Your task to perform on an android device: Find coffee shops on Maps Image 0: 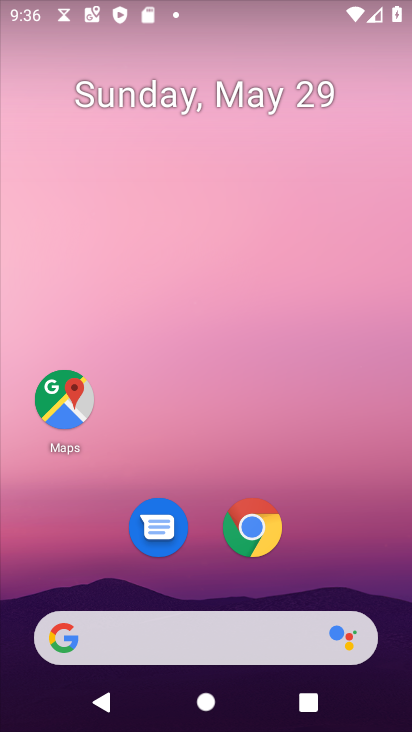
Step 0: press home button
Your task to perform on an android device: Find coffee shops on Maps Image 1: 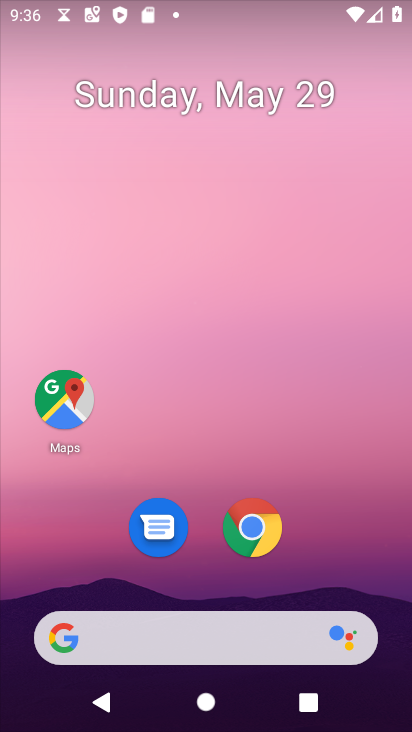
Step 1: click (62, 406)
Your task to perform on an android device: Find coffee shops on Maps Image 2: 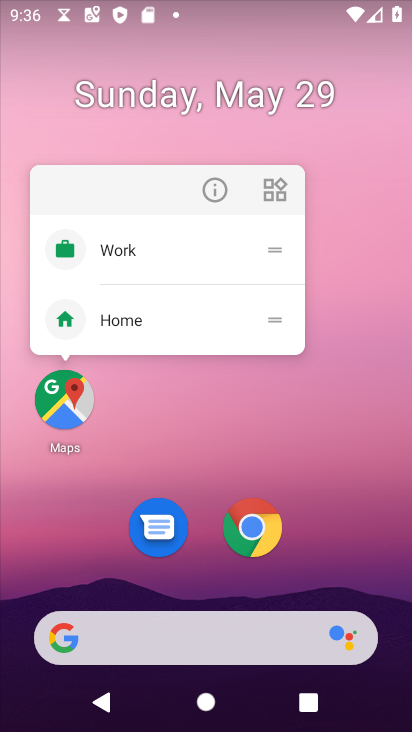
Step 2: click (61, 421)
Your task to perform on an android device: Find coffee shops on Maps Image 3: 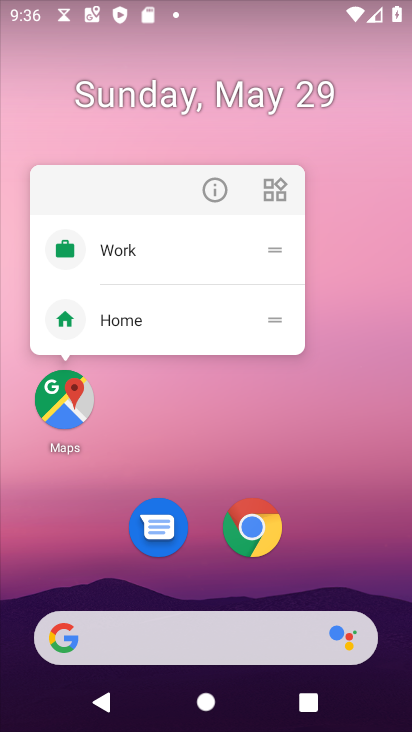
Step 3: click (57, 396)
Your task to perform on an android device: Find coffee shops on Maps Image 4: 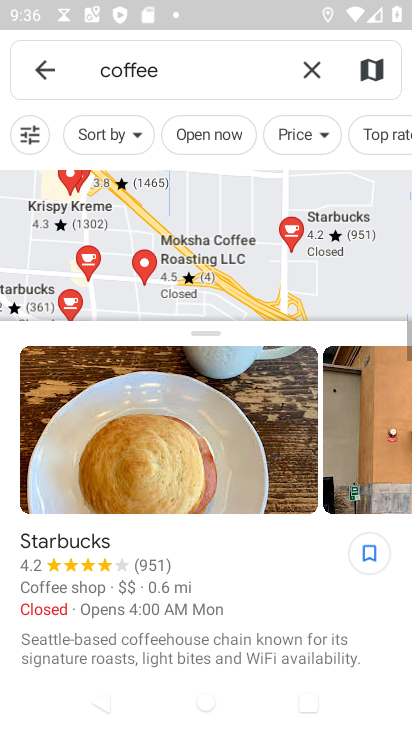
Step 4: drag from (223, 606) to (349, 158)
Your task to perform on an android device: Find coffee shops on Maps Image 5: 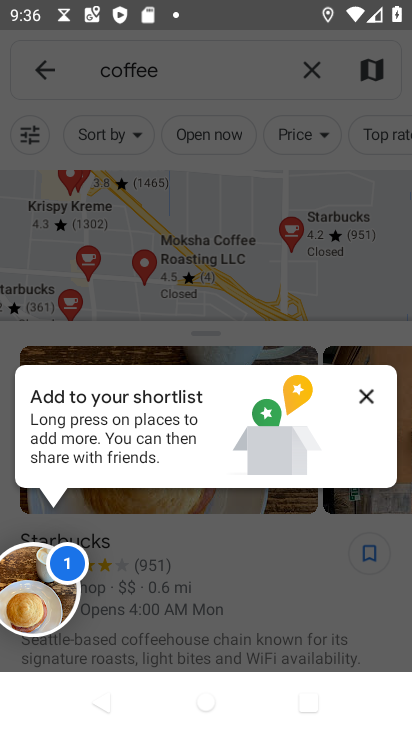
Step 5: drag from (26, 595) to (182, 722)
Your task to perform on an android device: Find coffee shops on Maps Image 6: 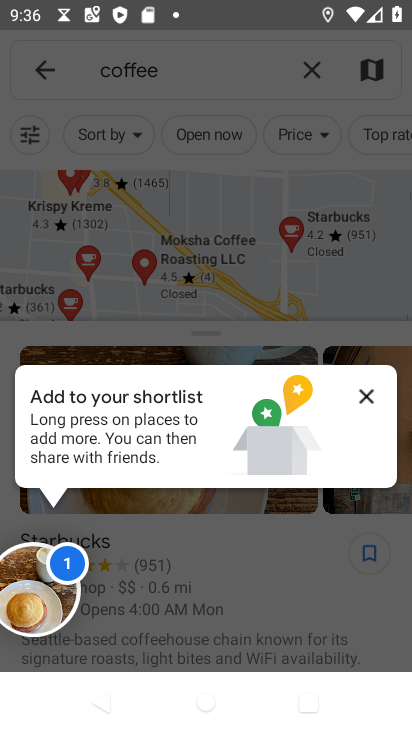
Step 6: drag from (43, 571) to (193, 686)
Your task to perform on an android device: Find coffee shops on Maps Image 7: 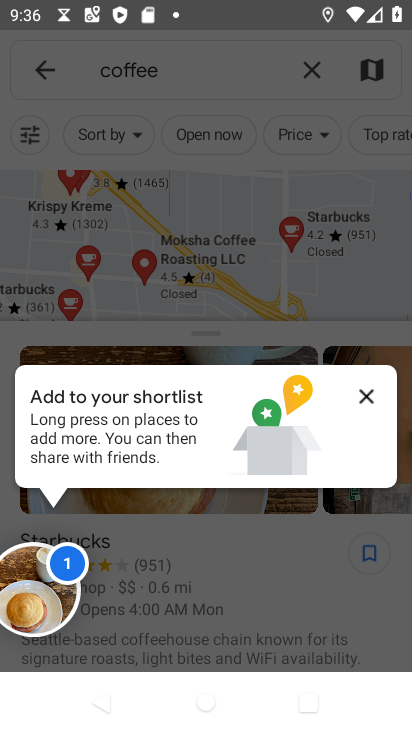
Step 7: click (364, 395)
Your task to perform on an android device: Find coffee shops on Maps Image 8: 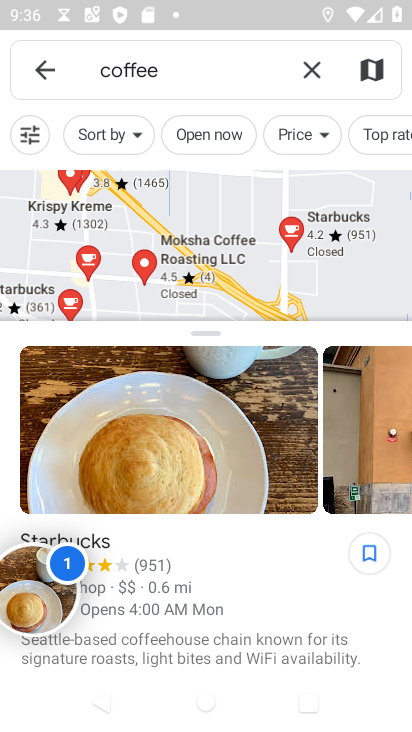
Step 8: drag from (20, 571) to (220, 709)
Your task to perform on an android device: Find coffee shops on Maps Image 9: 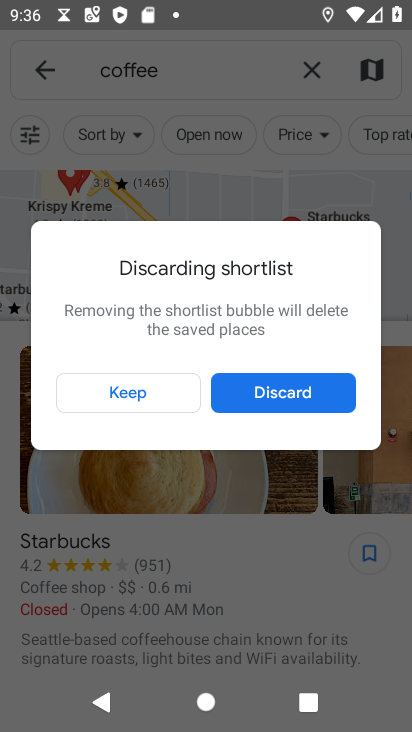
Step 9: click (320, 402)
Your task to perform on an android device: Find coffee shops on Maps Image 10: 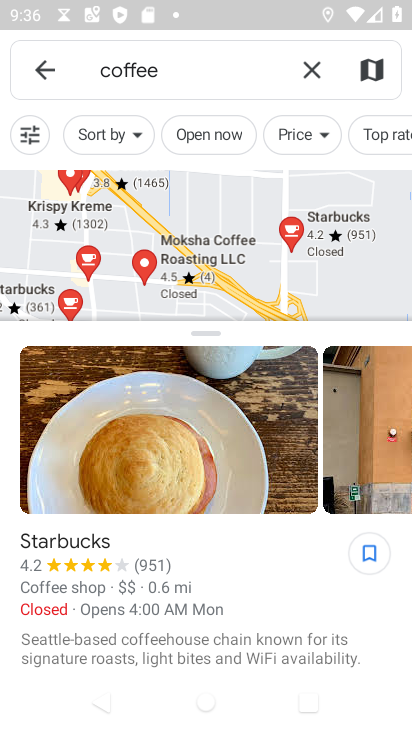
Step 10: task complete